Your task to perform on an android device: manage bookmarks in the chrome app Image 0: 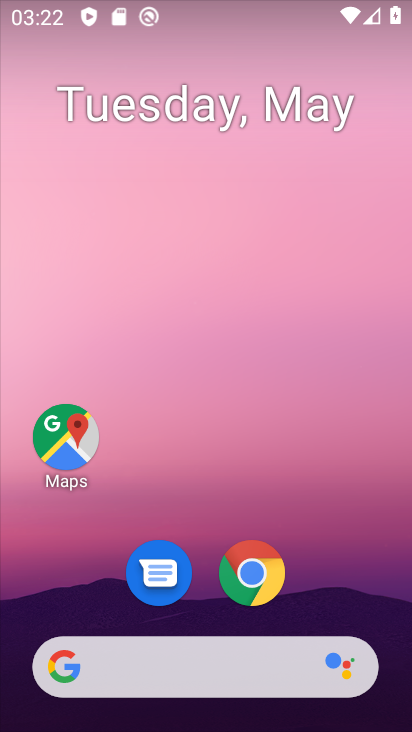
Step 0: click (263, 561)
Your task to perform on an android device: manage bookmarks in the chrome app Image 1: 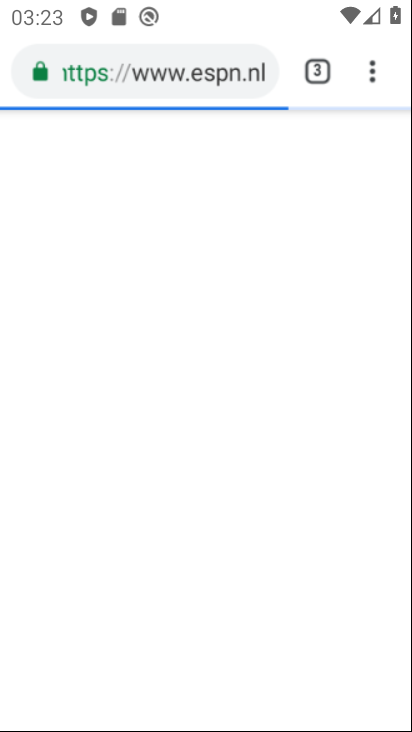
Step 1: click (377, 66)
Your task to perform on an android device: manage bookmarks in the chrome app Image 2: 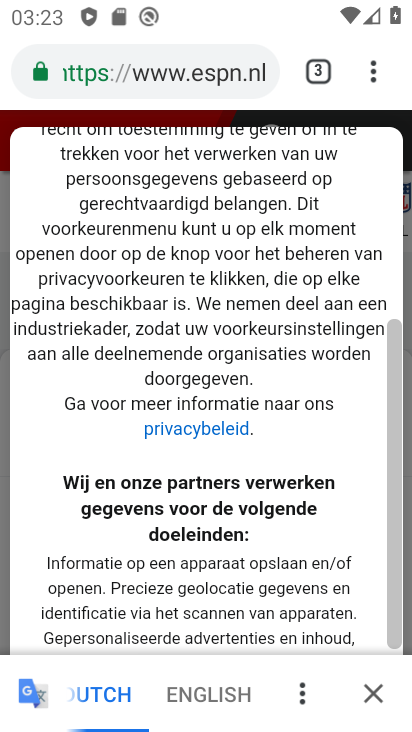
Step 2: task complete